Your task to perform on an android device: turn off airplane mode Image 0: 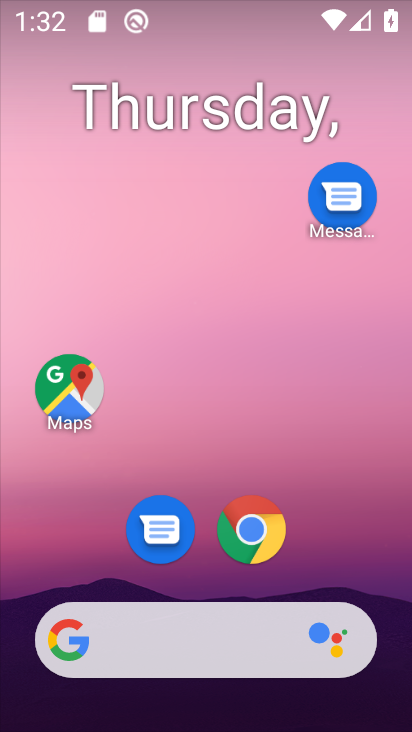
Step 0: drag from (254, 11) to (285, 469)
Your task to perform on an android device: turn off airplane mode Image 1: 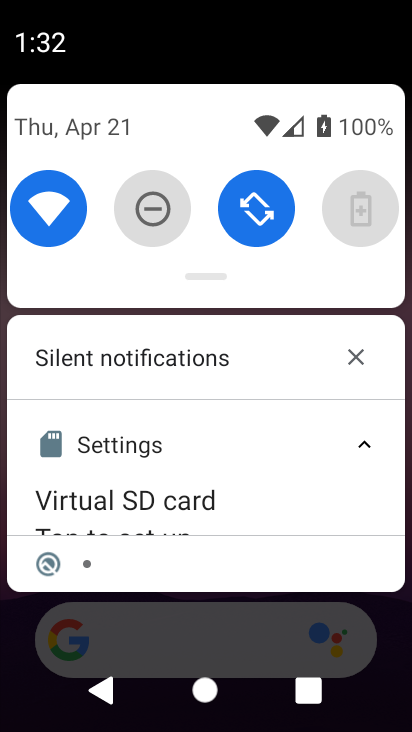
Step 1: task complete